Your task to perform on an android device: Go to calendar. Show me events next week Image 0: 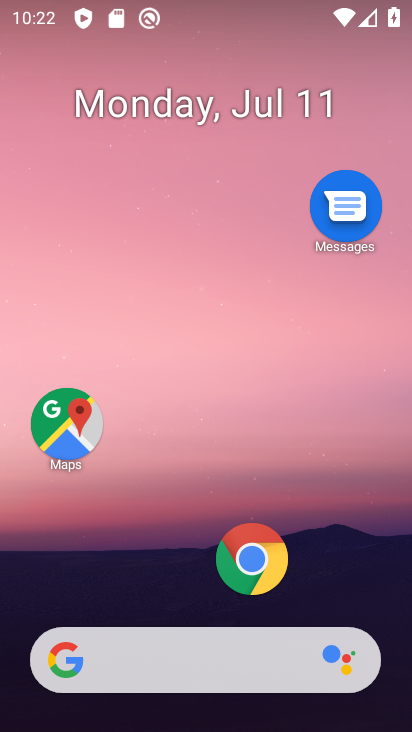
Step 0: drag from (381, 598) to (343, 154)
Your task to perform on an android device: Go to calendar. Show me events next week Image 1: 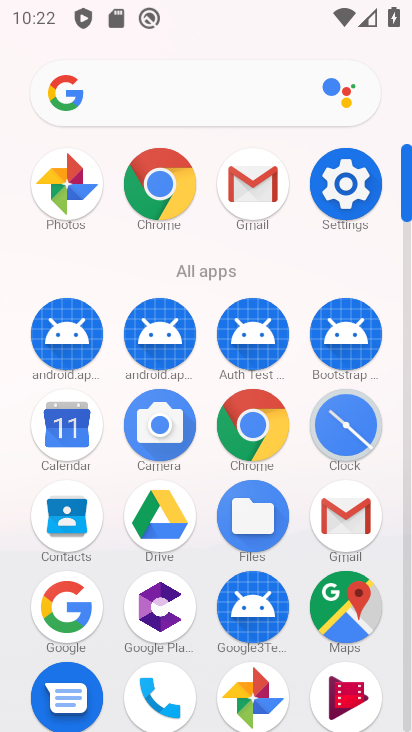
Step 1: click (73, 424)
Your task to perform on an android device: Go to calendar. Show me events next week Image 2: 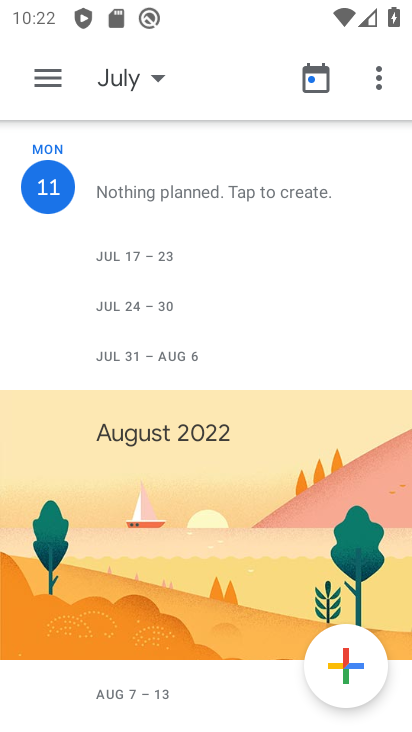
Step 2: task complete